Your task to perform on an android device: open chrome privacy settings Image 0: 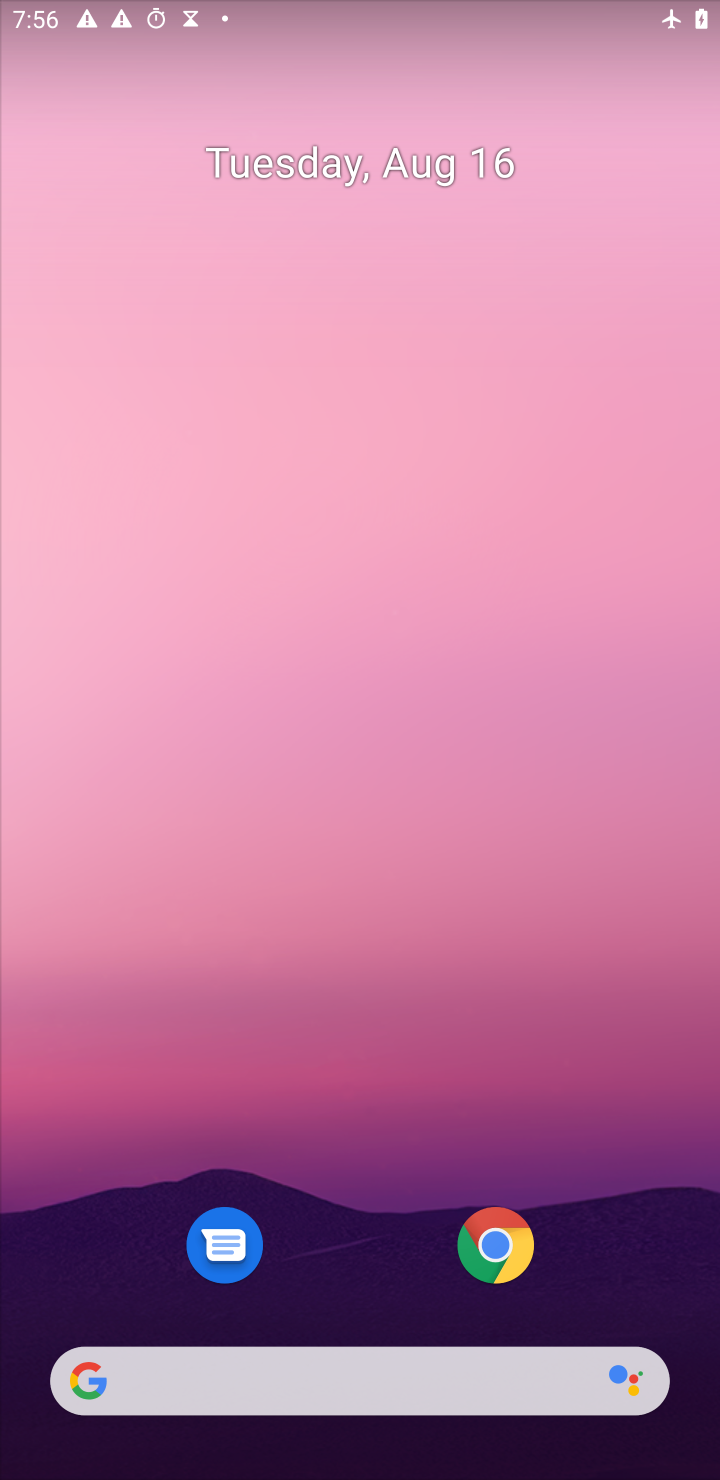
Step 0: press home button
Your task to perform on an android device: open chrome privacy settings Image 1: 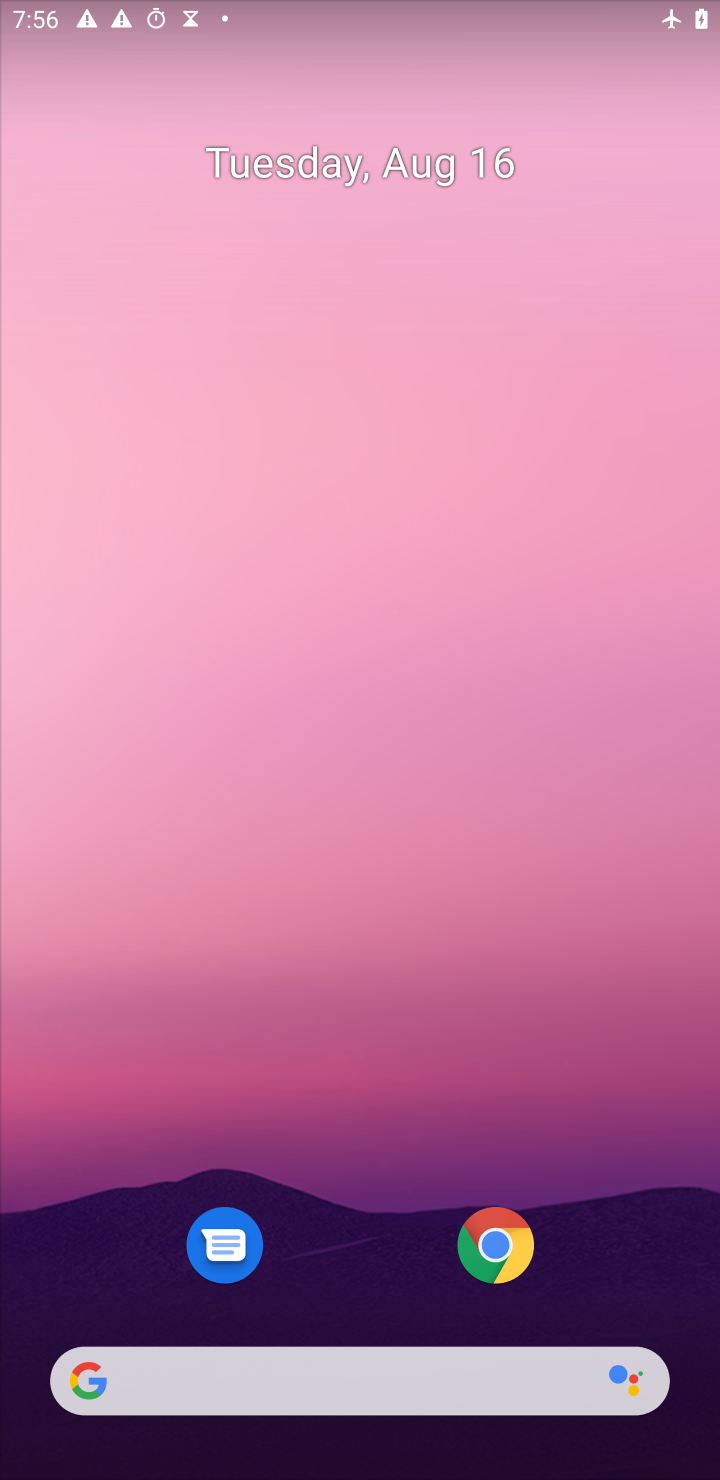
Step 1: click (488, 1247)
Your task to perform on an android device: open chrome privacy settings Image 2: 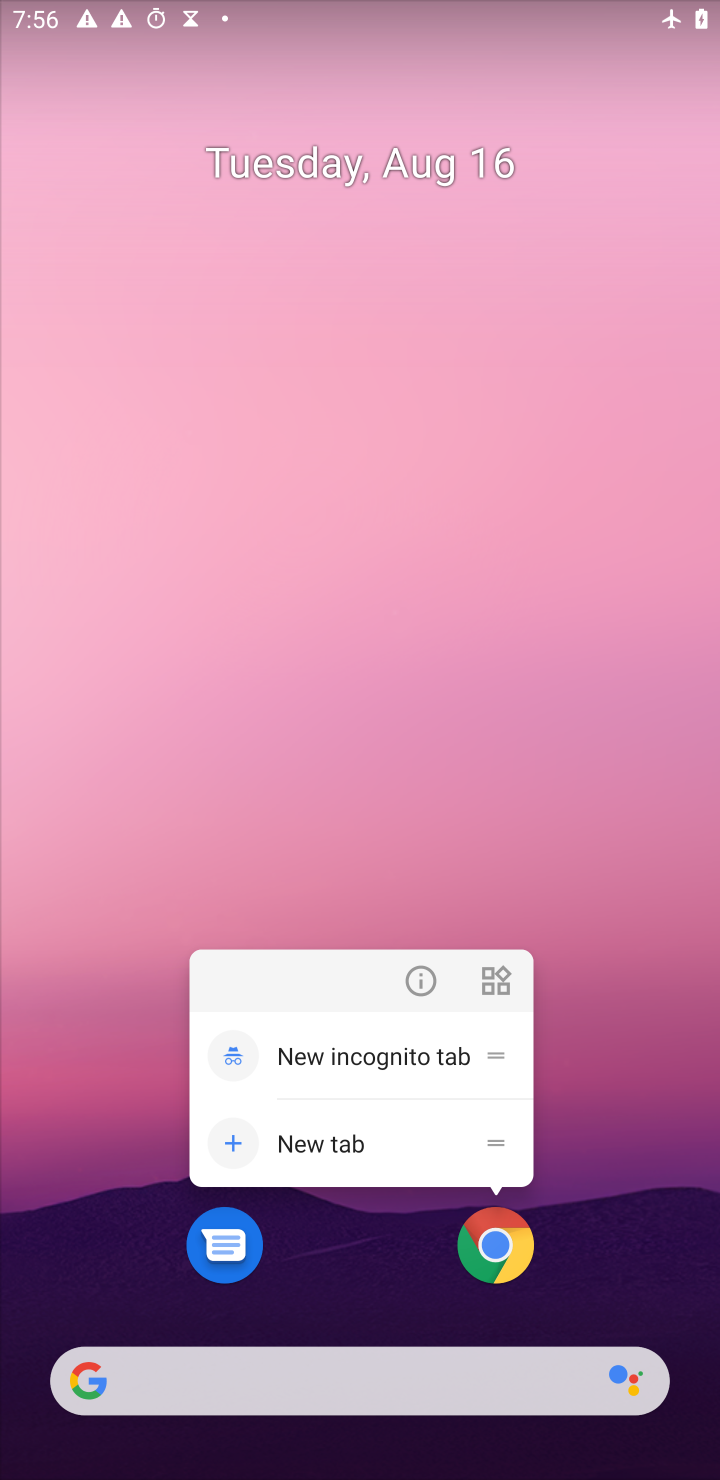
Step 2: click (512, 1244)
Your task to perform on an android device: open chrome privacy settings Image 3: 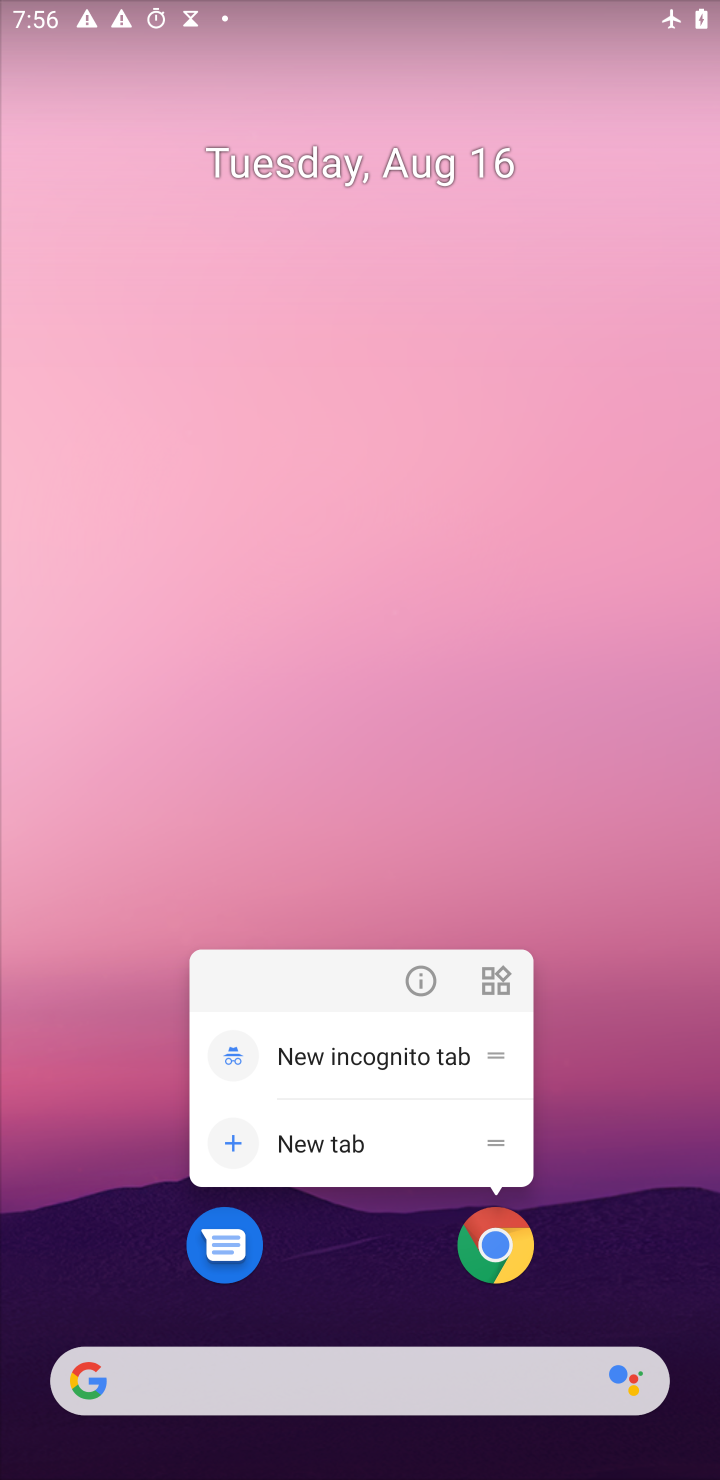
Step 3: press home button
Your task to perform on an android device: open chrome privacy settings Image 4: 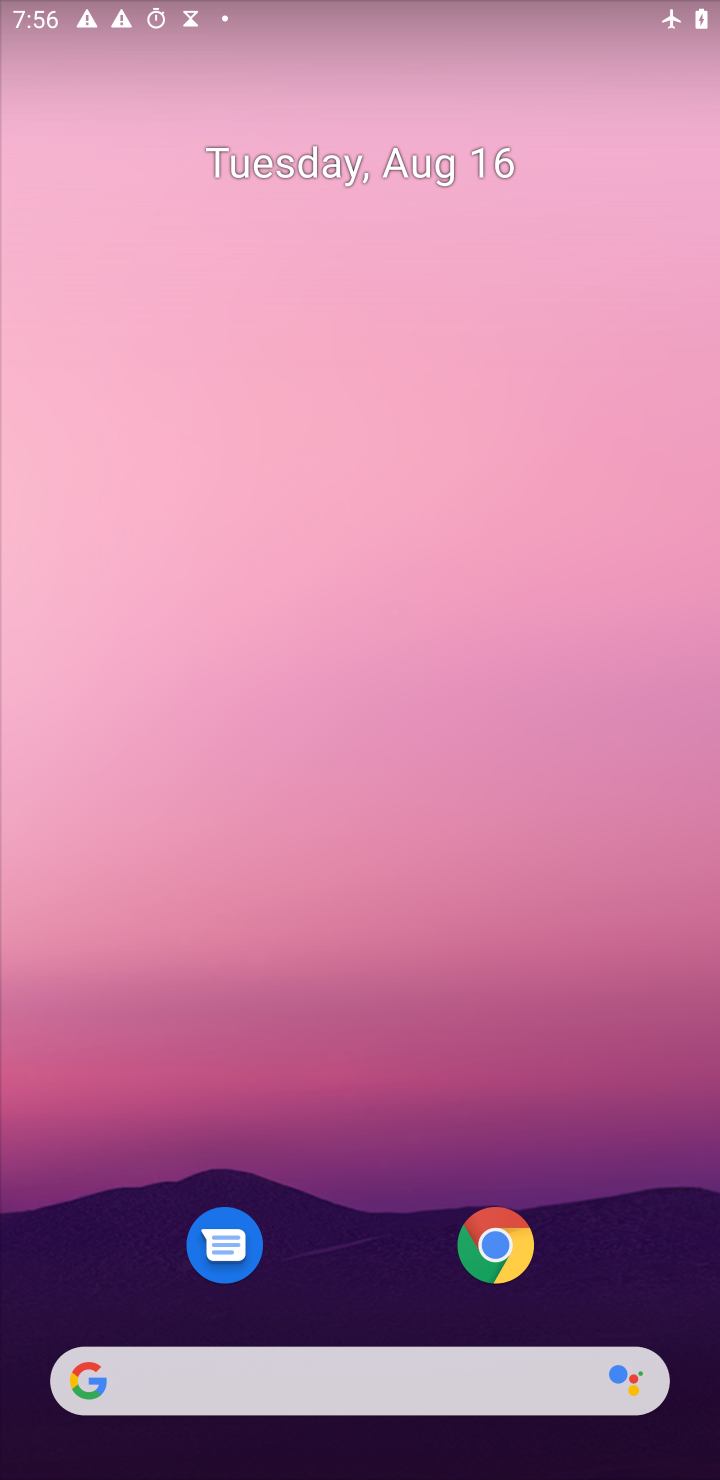
Step 4: drag from (356, 1203) to (354, 192)
Your task to perform on an android device: open chrome privacy settings Image 5: 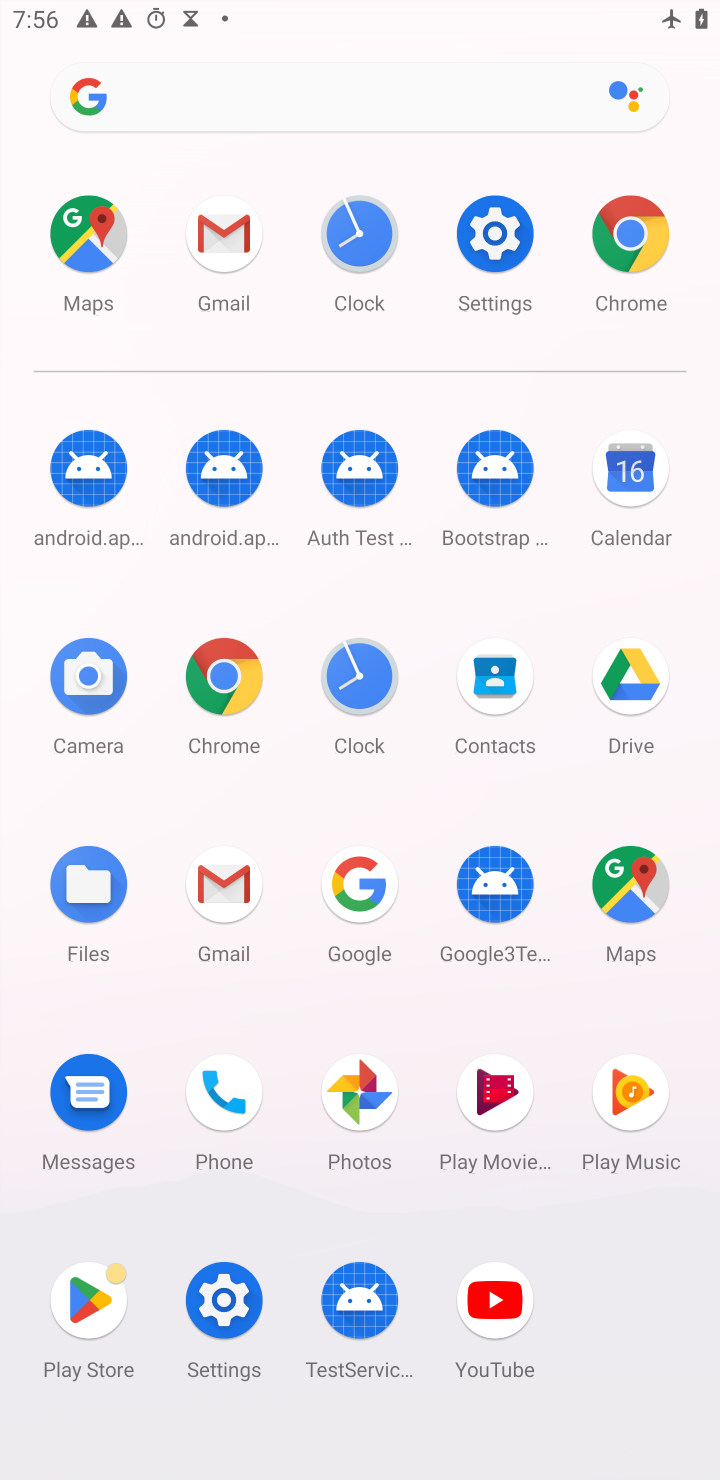
Step 5: click (611, 223)
Your task to perform on an android device: open chrome privacy settings Image 6: 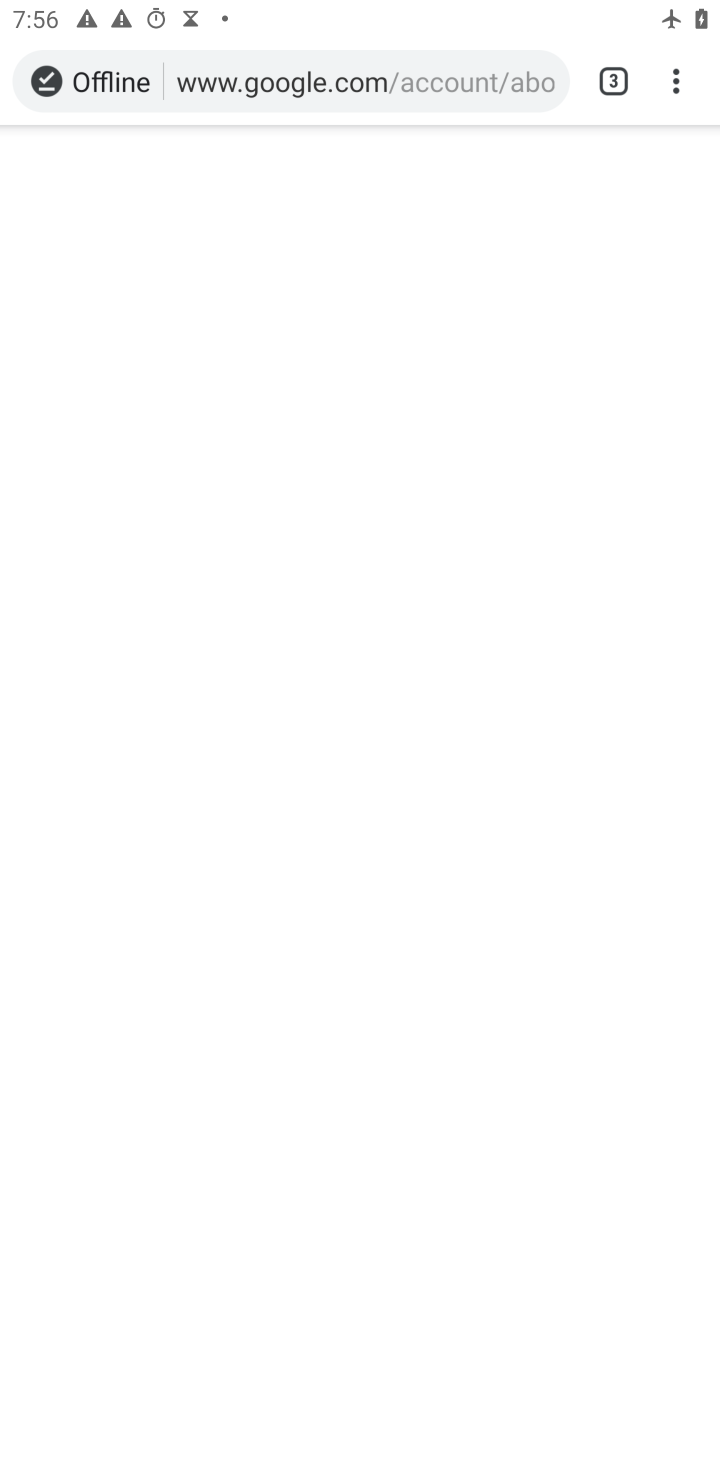
Step 6: drag from (667, 77) to (408, 904)
Your task to perform on an android device: open chrome privacy settings Image 7: 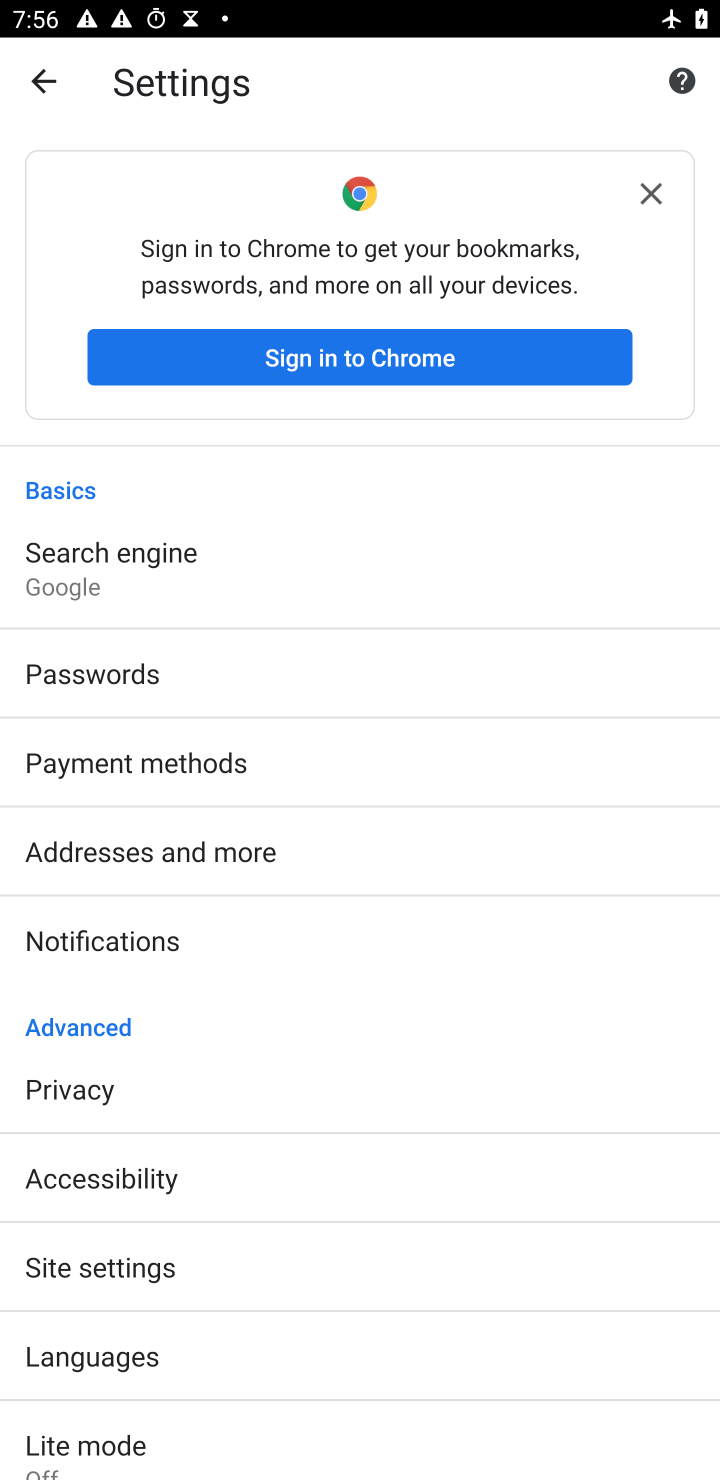
Step 7: click (59, 1100)
Your task to perform on an android device: open chrome privacy settings Image 8: 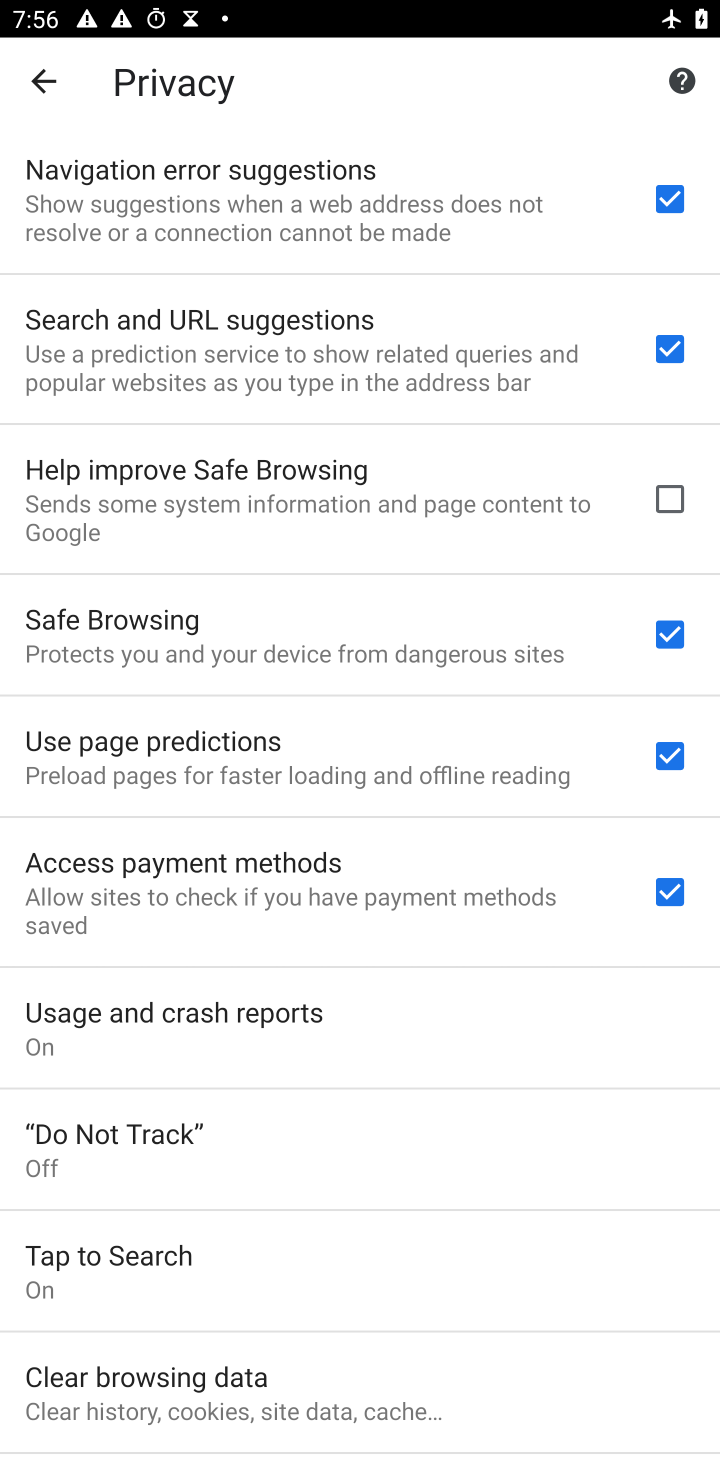
Step 8: task complete